Your task to perform on an android device: open a new tab in the chrome app Image 0: 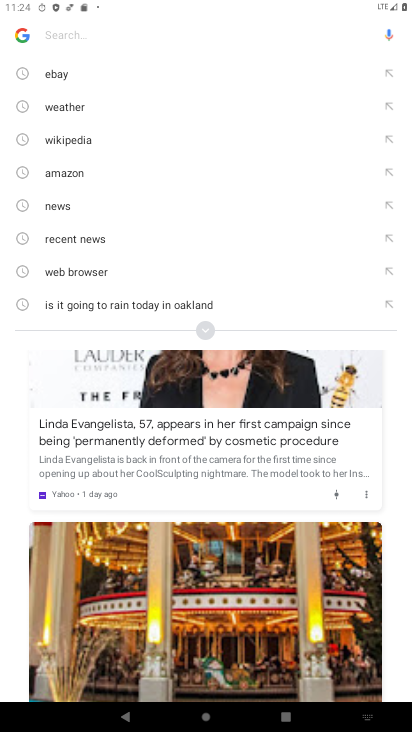
Step 0: press home button
Your task to perform on an android device: open a new tab in the chrome app Image 1: 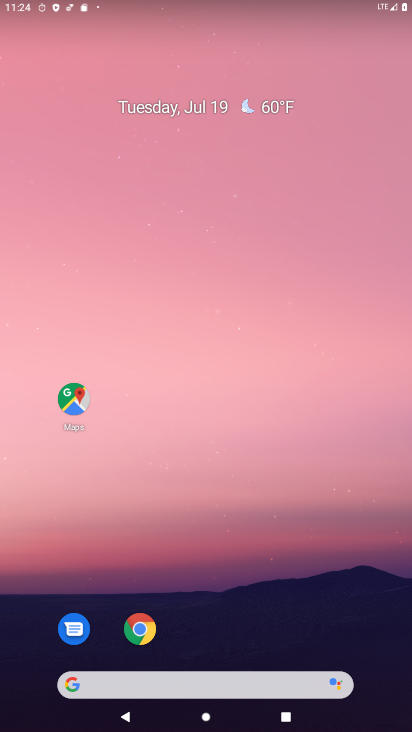
Step 1: drag from (285, 384) to (269, 6)
Your task to perform on an android device: open a new tab in the chrome app Image 2: 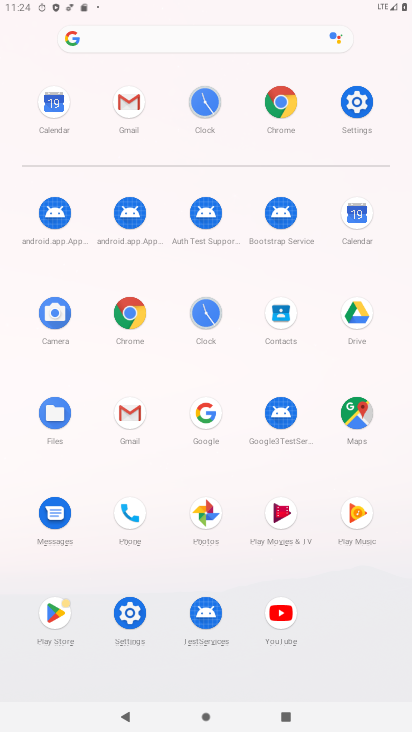
Step 2: click (282, 100)
Your task to perform on an android device: open a new tab in the chrome app Image 3: 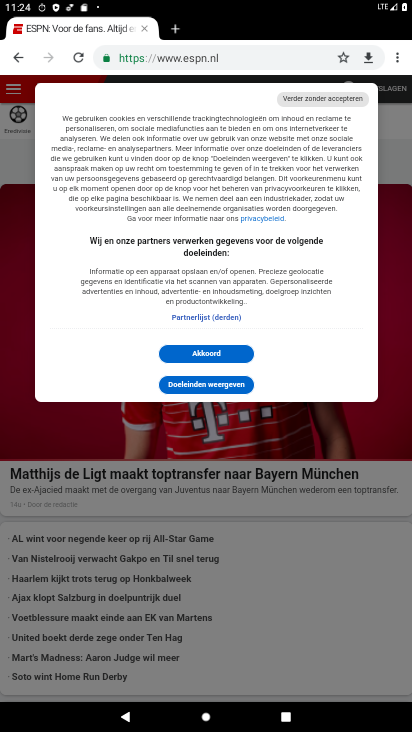
Step 3: click (175, 27)
Your task to perform on an android device: open a new tab in the chrome app Image 4: 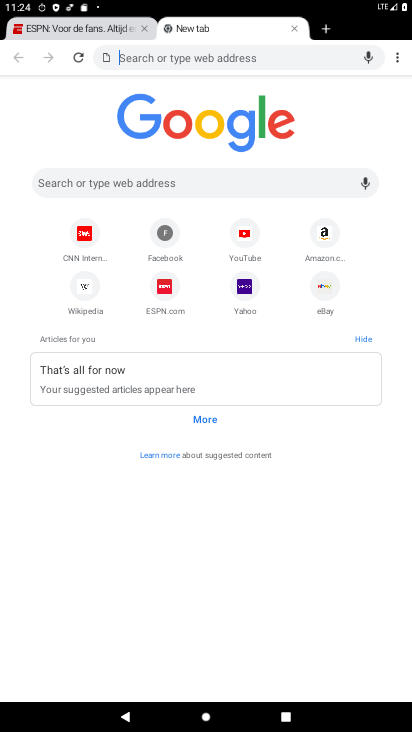
Step 4: task complete